Your task to perform on an android device: Open the calendar and show me this week's events? Image 0: 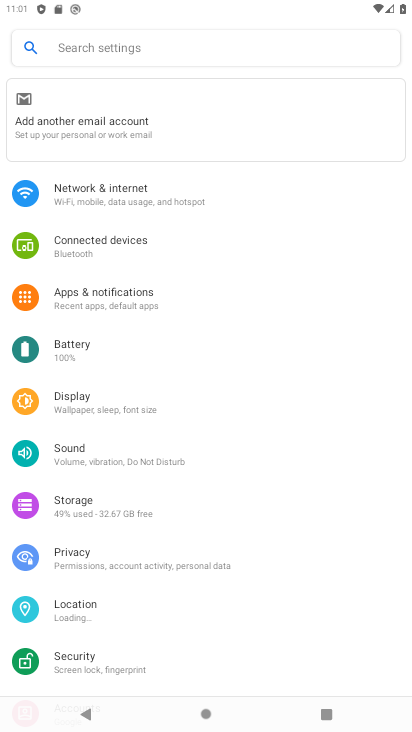
Step 0: press back button
Your task to perform on an android device: Open the calendar and show me this week's events? Image 1: 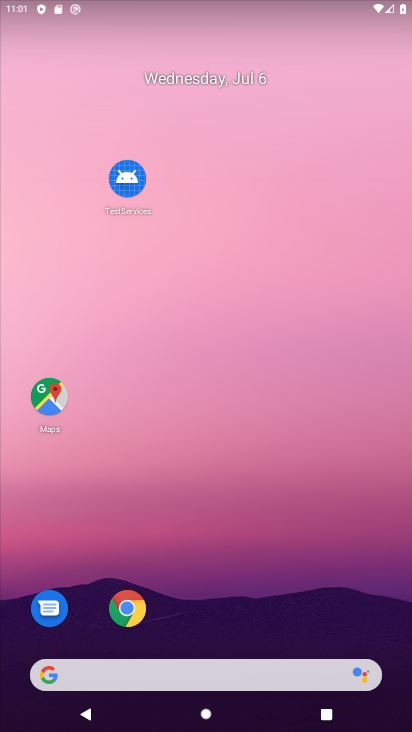
Step 1: drag from (241, 612) to (190, 187)
Your task to perform on an android device: Open the calendar and show me this week's events? Image 2: 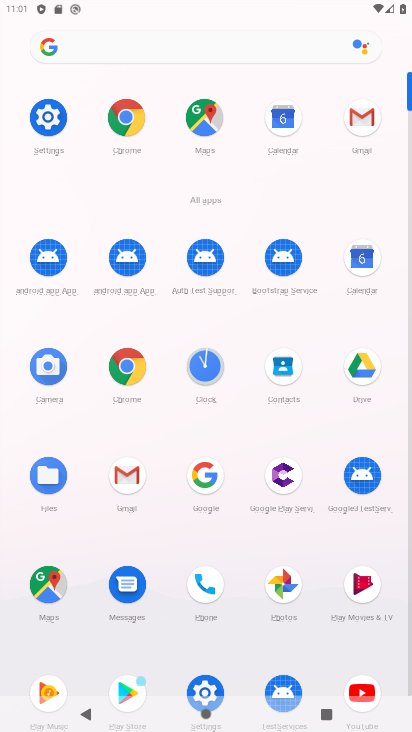
Step 2: drag from (246, 685) to (242, 373)
Your task to perform on an android device: Open the calendar and show me this week's events? Image 3: 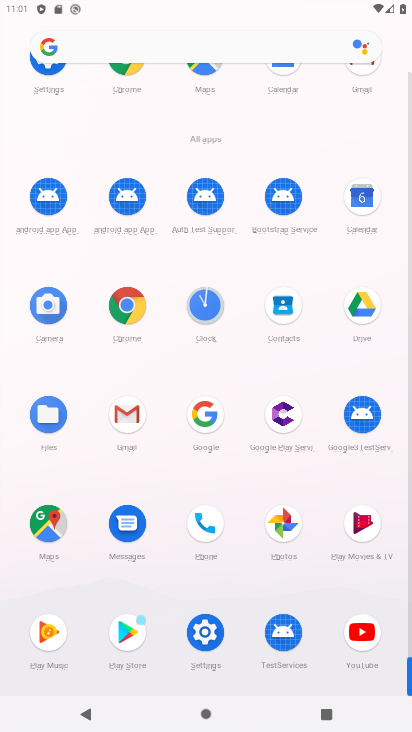
Step 3: click (360, 202)
Your task to perform on an android device: Open the calendar and show me this week's events? Image 4: 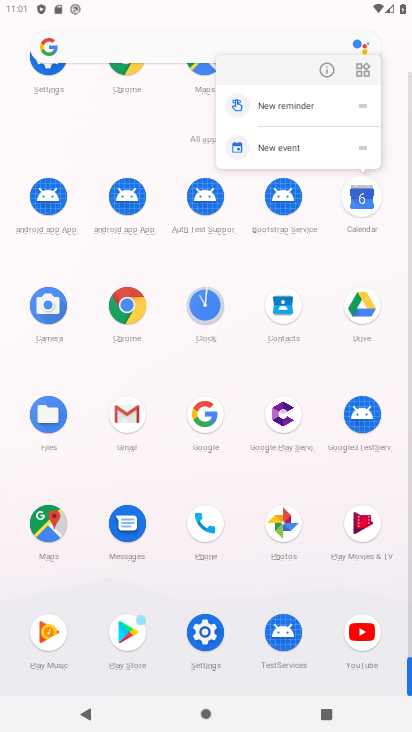
Step 4: click (359, 204)
Your task to perform on an android device: Open the calendar and show me this week's events? Image 5: 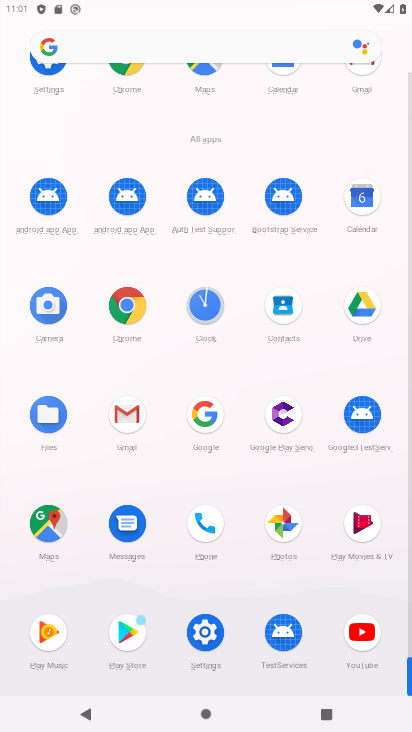
Step 5: click (361, 206)
Your task to perform on an android device: Open the calendar and show me this week's events? Image 6: 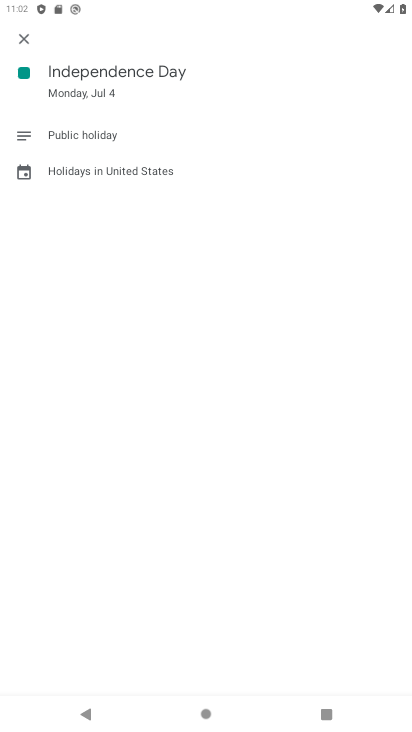
Step 6: click (21, 22)
Your task to perform on an android device: Open the calendar and show me this week's events? Image 7: 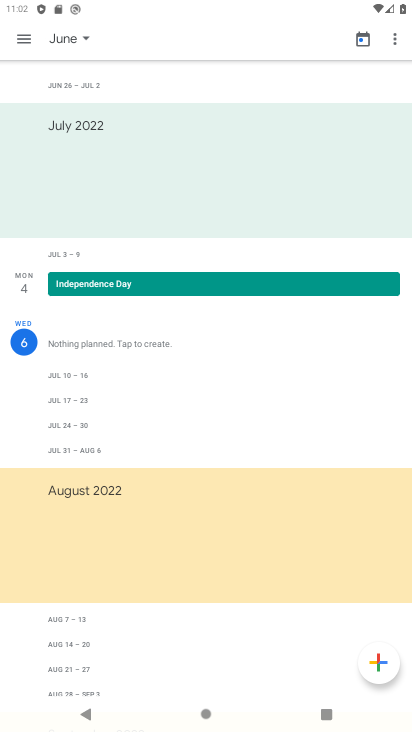
Step 7: click (30, 35)
Your task to perform on an android device: Open the calendar and show me this week's events? Image 8: 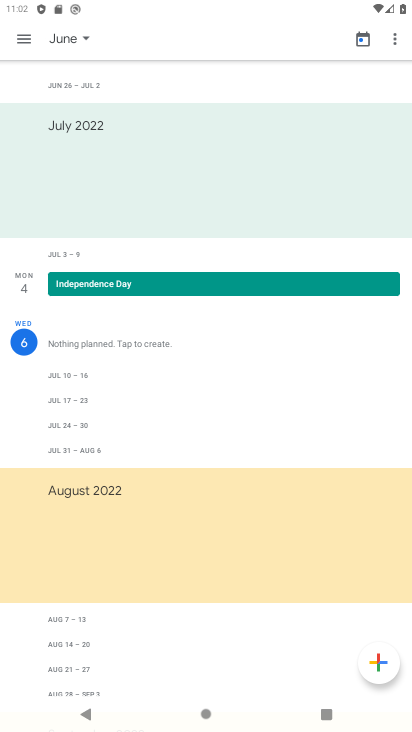
Step 8: click (30, 35)
Your task to perform on an android device: Open the calendar and show me this week's events? Image 9: 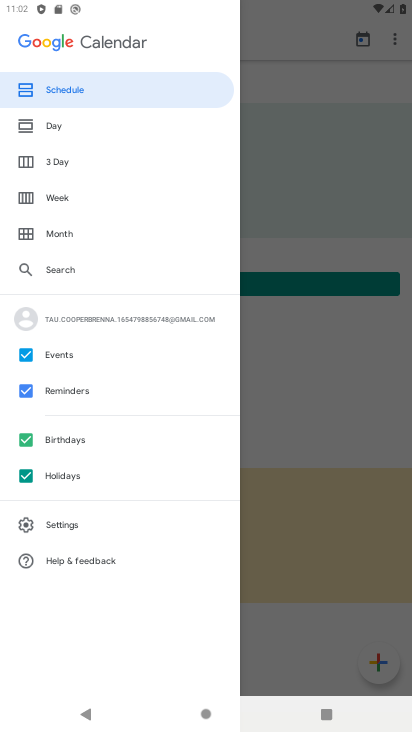
Step 9: click (78, 91)
Your task to perform on an android device: Open the calendar and show me this week's events? Image 10: 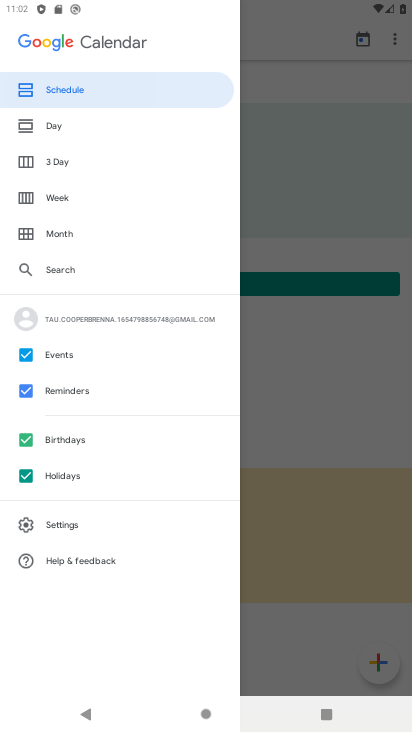
Step 10: click (82, 97)
Your task to perform on an android device: Open the calendar and show me this week's events? Image 11: 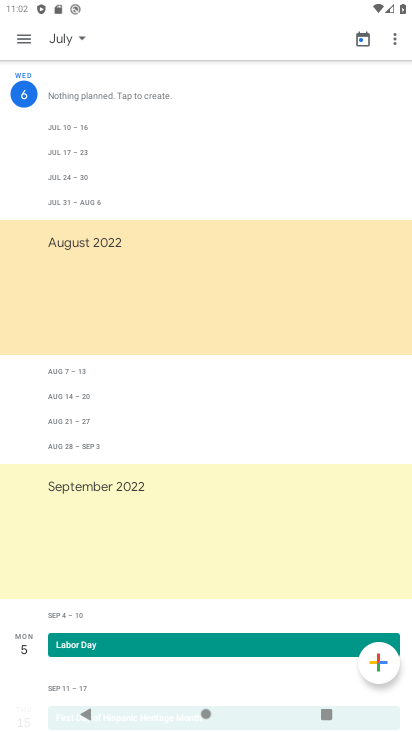
Step 11: click (47, 66)
Your task to perform on an android device: Open the calendar and show me this week's events? Image 12: 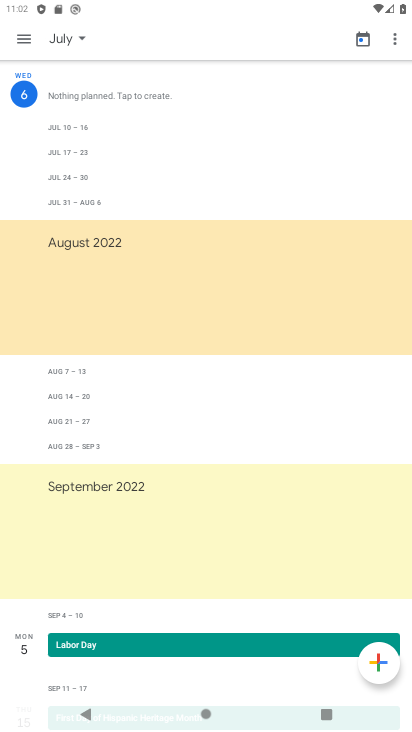
Step 12: click (27, 37)
Your task to perform on an android device: Open the calendar and show me this week's events? Image 13: 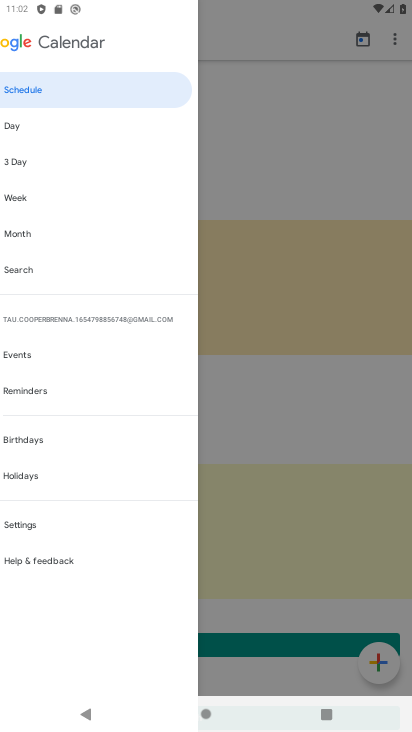
Step 13: click (27, 37)
Your task to perform on an android device: Open the calendar and show me this week's events? Image 14: 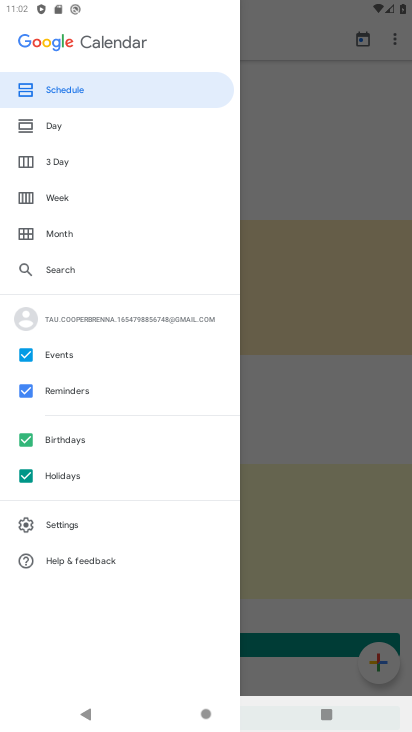
Step 14: click (33, 28)
Your task to perform on an android device: Open the calendar and show me this week's events? Image 15: 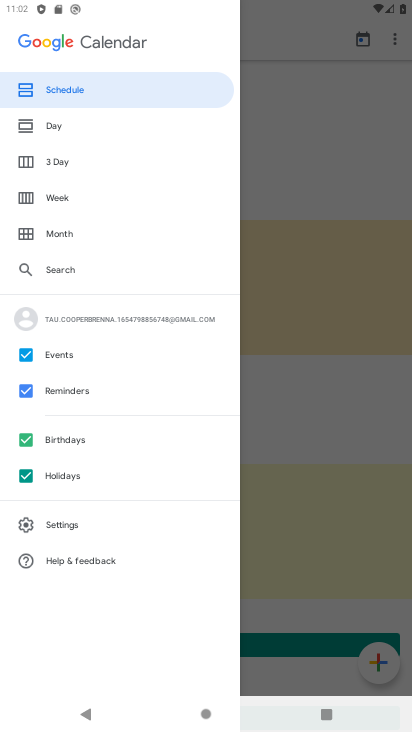
Step 15: click (62, 201)
Your task to perform on an android device: Open the calendar and show me this week's events? Image 16: 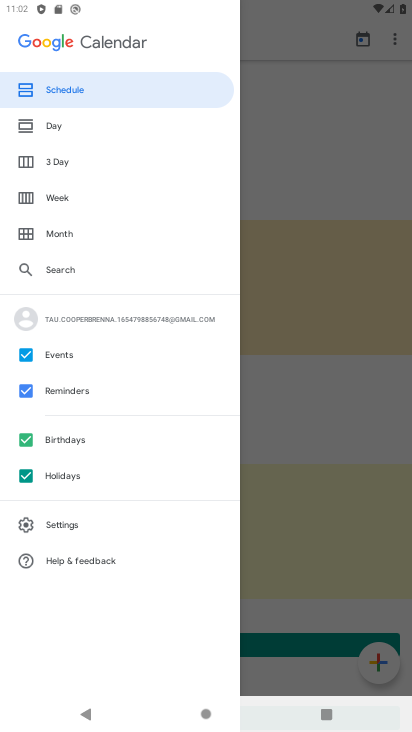
Step 16: click (63, 204)
Your task to perform on an android device: Open the calendar and show me this week's events? Image 17: 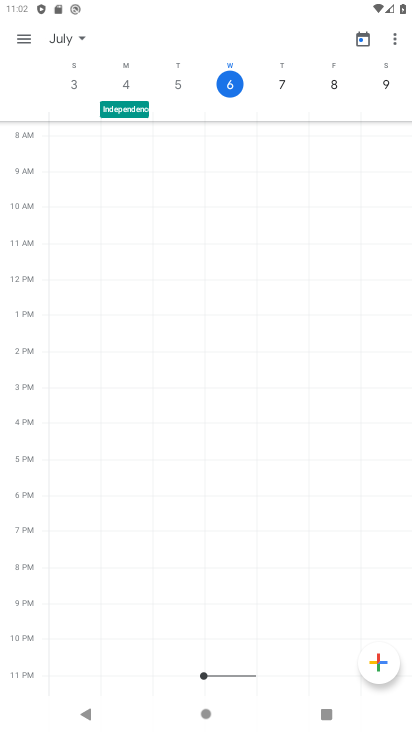
Step 17: click (119, 106)
Your task to perform on an android device: Open the calendar and show me this week's events? Image 18: 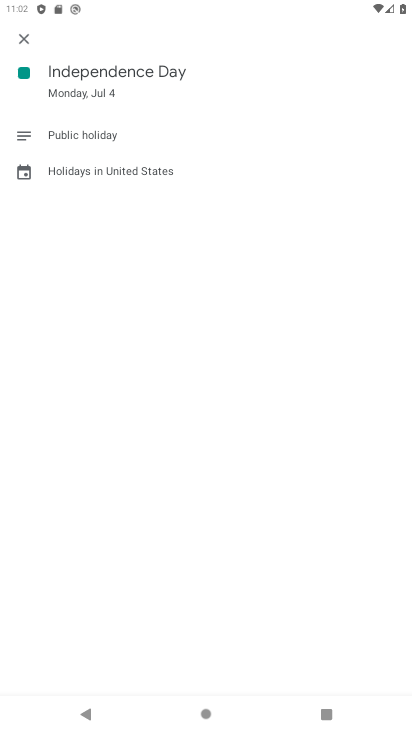
Step 18: click (22, 37)
Your task to perform on an android device: Open the calendar and show me this week's events? Image 19: 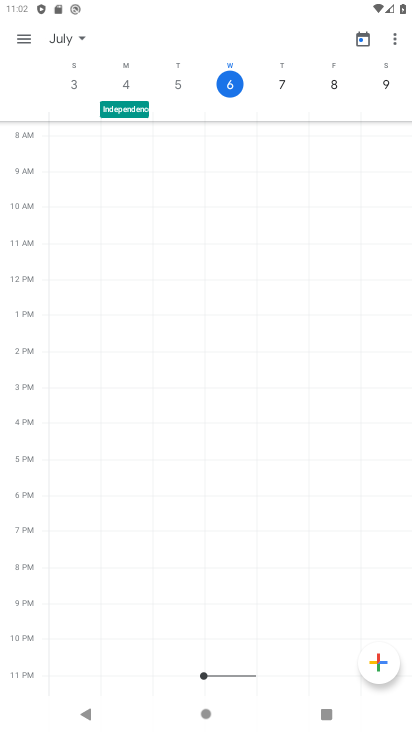
Step 19: click (21, 42)
Your task to perform on an android device: Open the calendar and show me this week's events? Image 20: 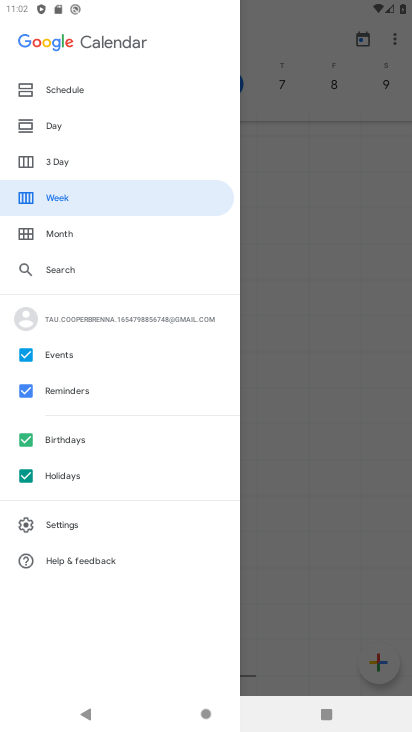
Step 20: click (55, 83)
Your task to perform on an android device: Open the calendar and show me this week's events? Image 21: 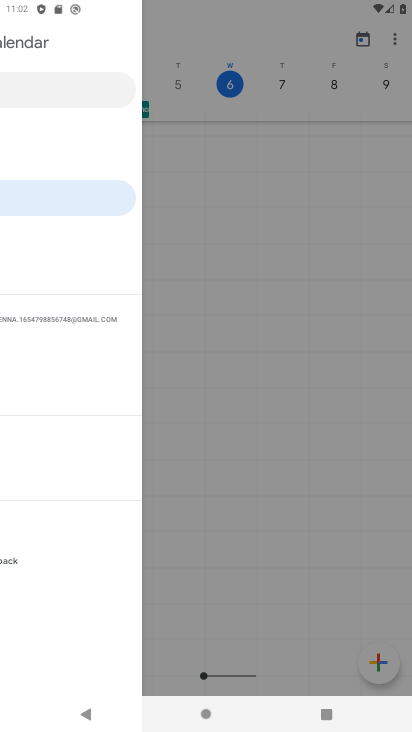
Step 21: click (56, 83)
Your task to perform on an android device: Open the calendar and show me this week's events? Image 22: 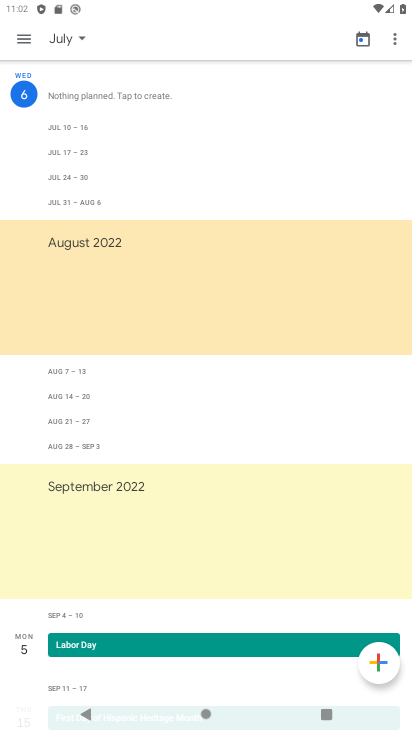
Step 22: task complete